Your task to perform on an android device: Install the Facebook app Image 0: 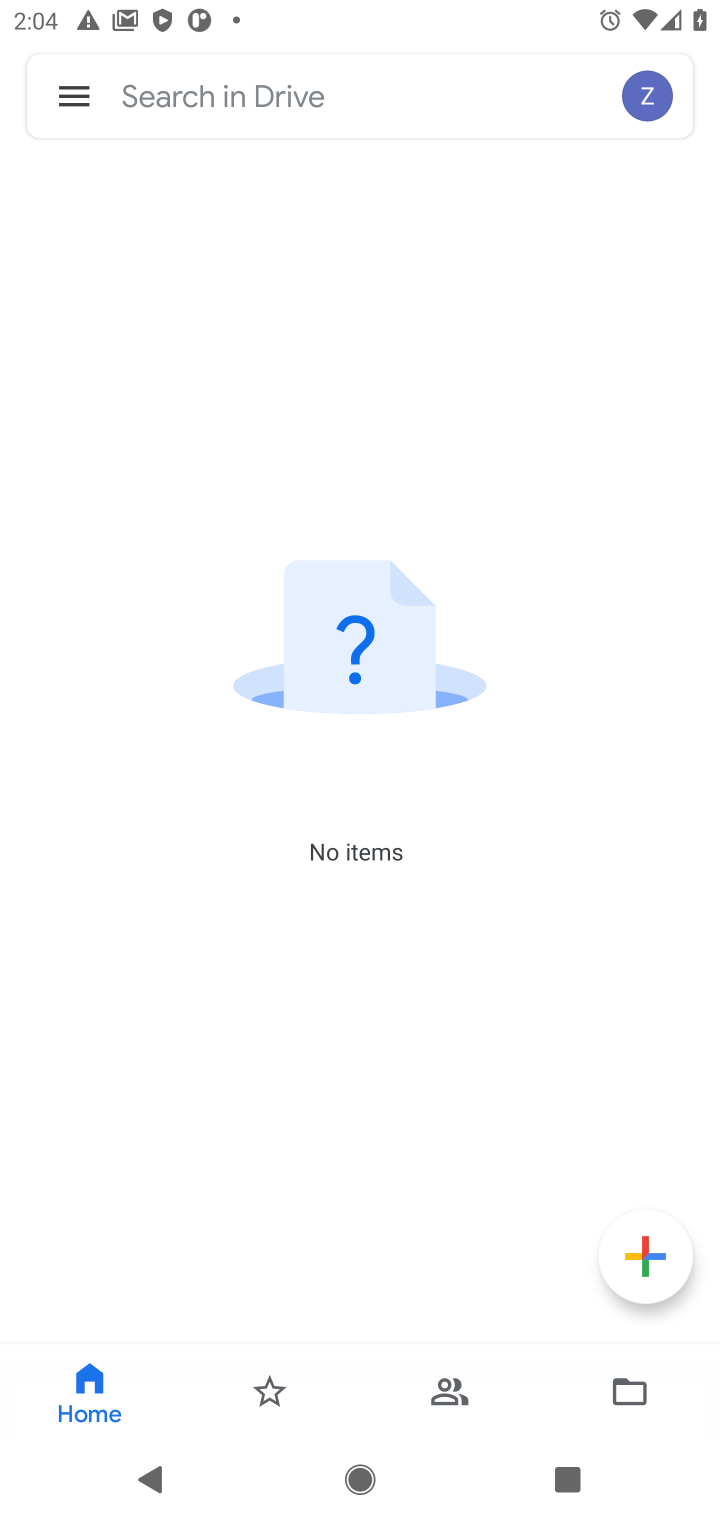
Step 0: press home button
Your task to perform on an android device: Install the Facebook app Image 1: 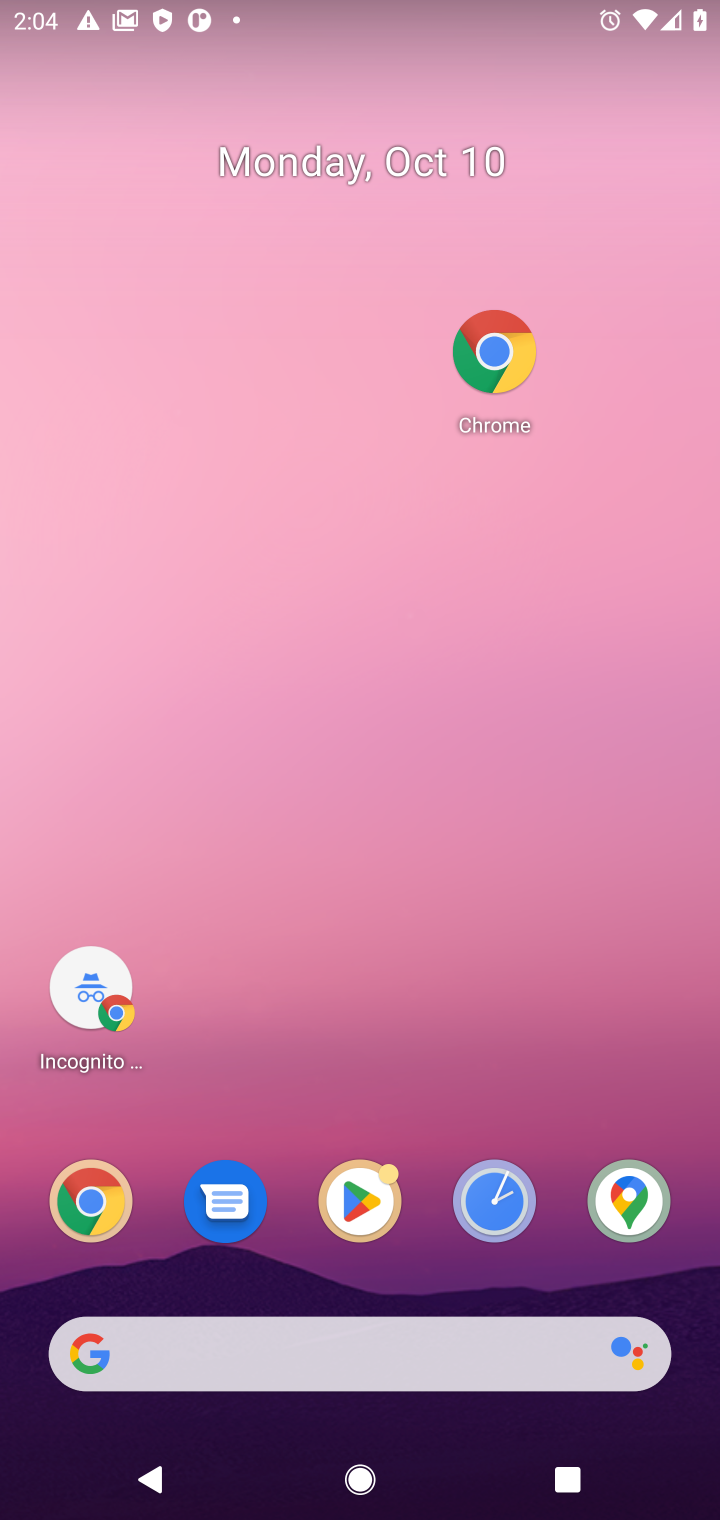
Step 1: click (337, 1208)
Your task to perform on an android device: Install the Facebook app Image 2: 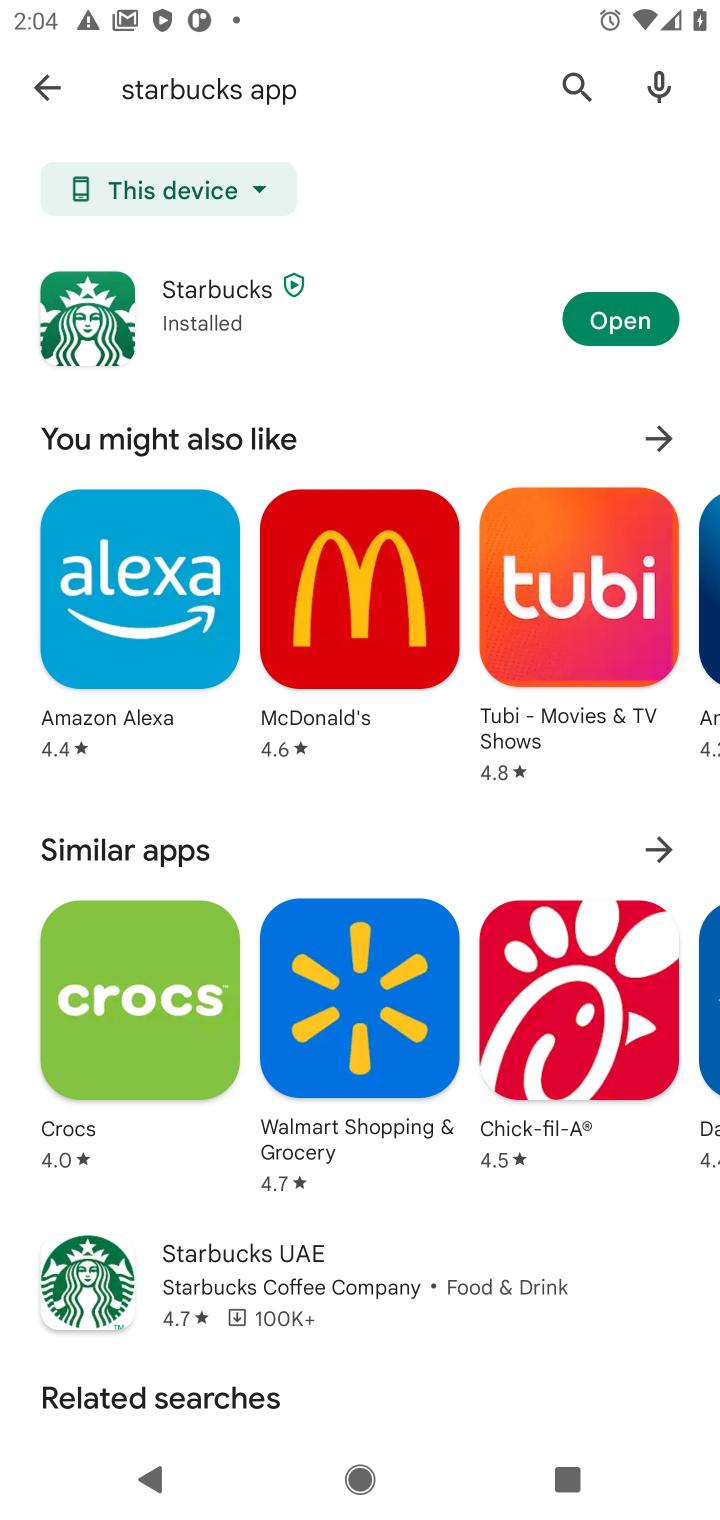
Step 2: click (571, 80)
Your task to perform on an android device: Install the Facebook app Image 3: 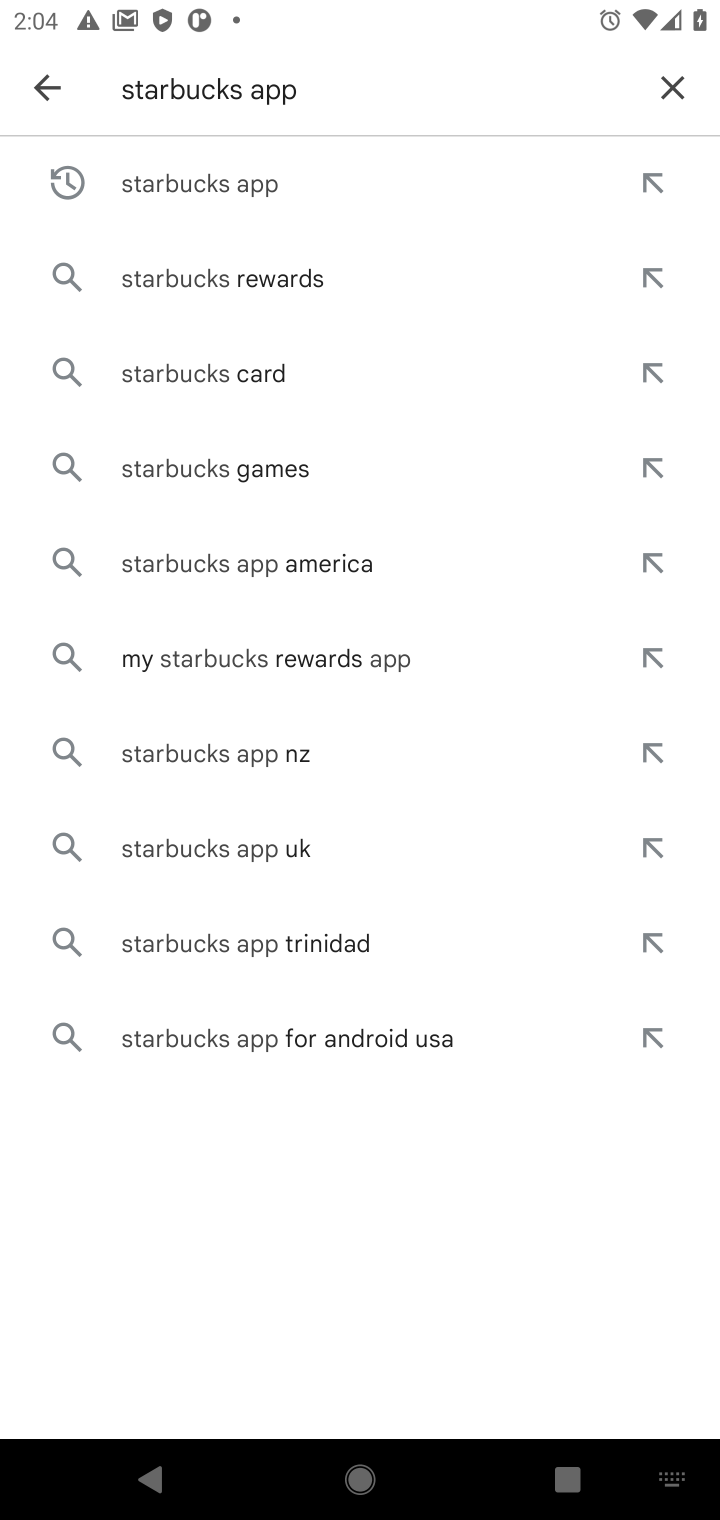
Step 3: click (662, 92)
Your task to perform on an android device: Install the Facebook app Image 4: 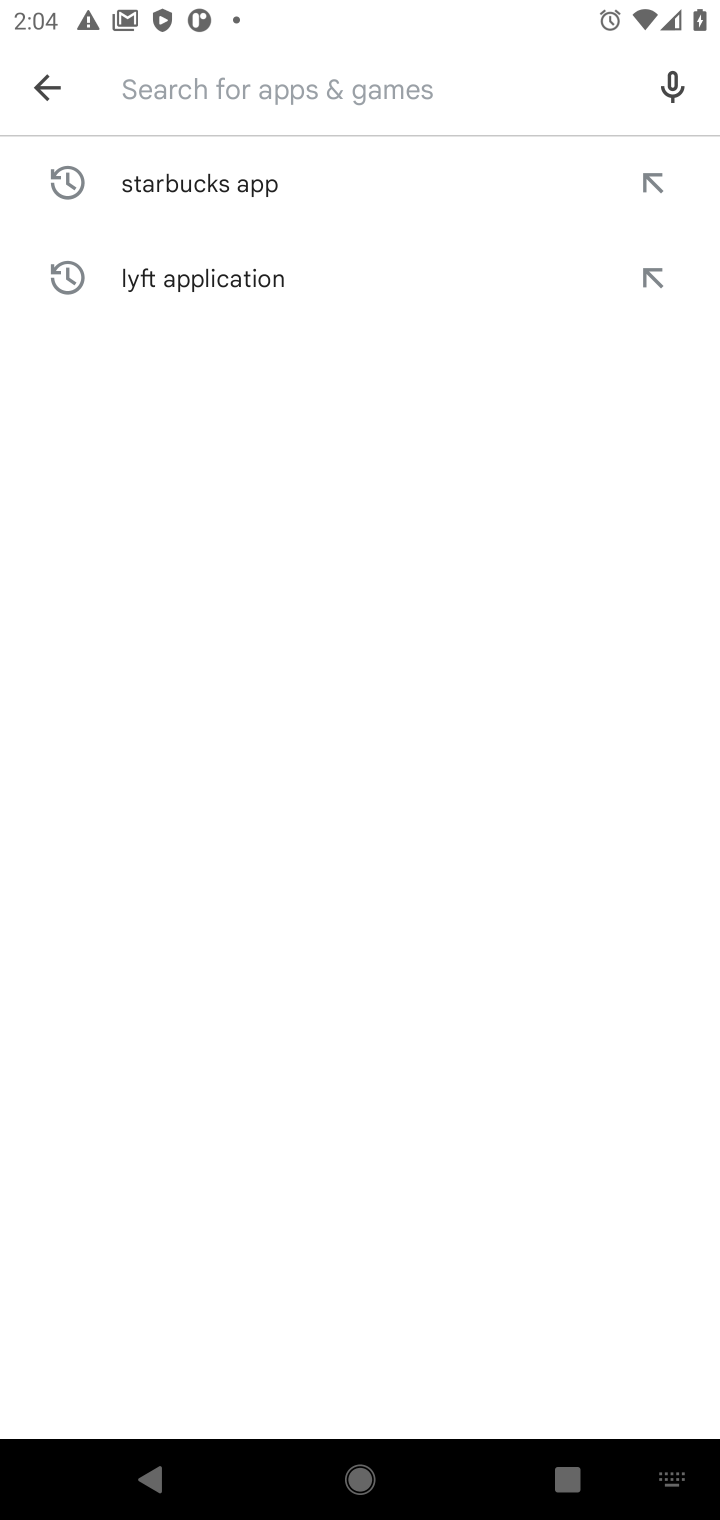
Step 4: type "facebook app"
Your task to perform on an android device: Install the Facebook app Image 5: 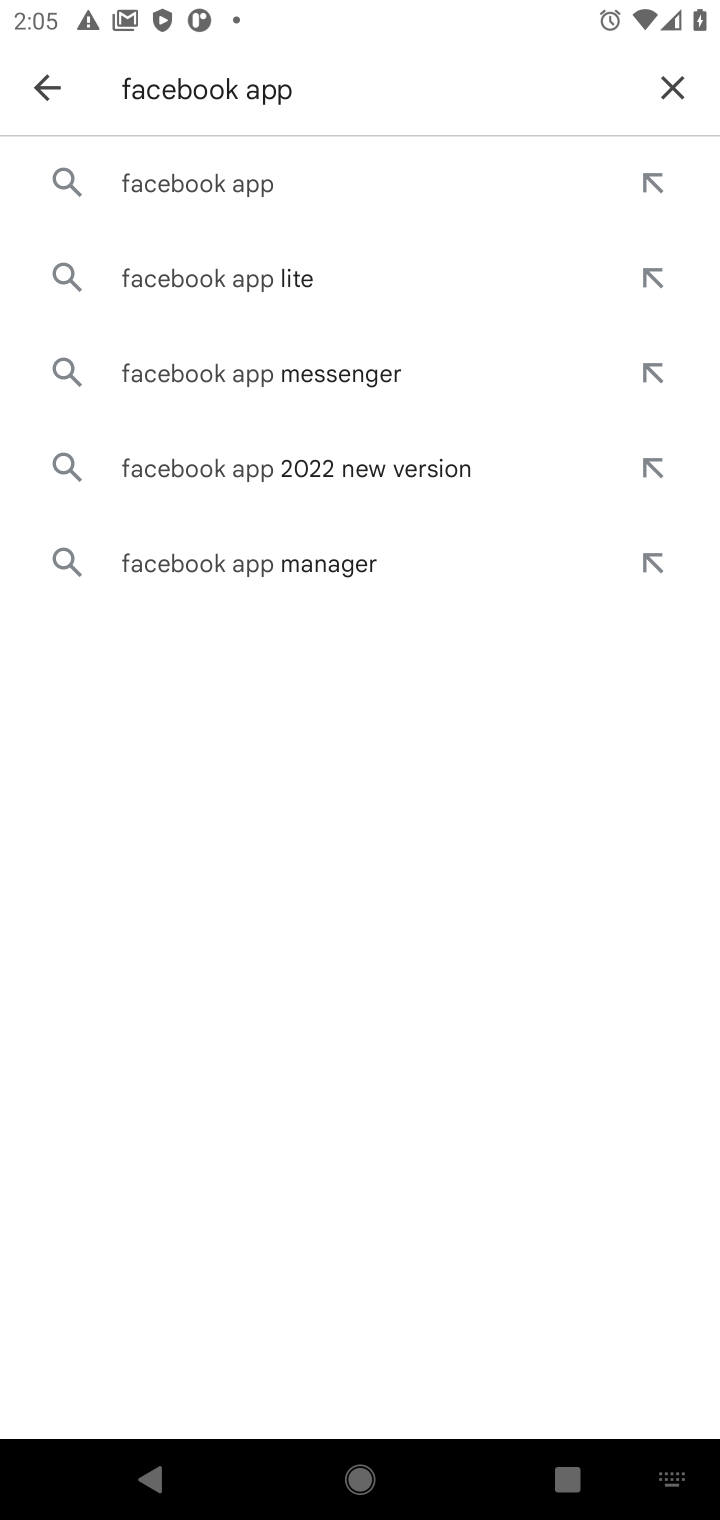
Step 5: click (240, 199)
Your task to perform on an android device: Install the Facebook app Image 6: 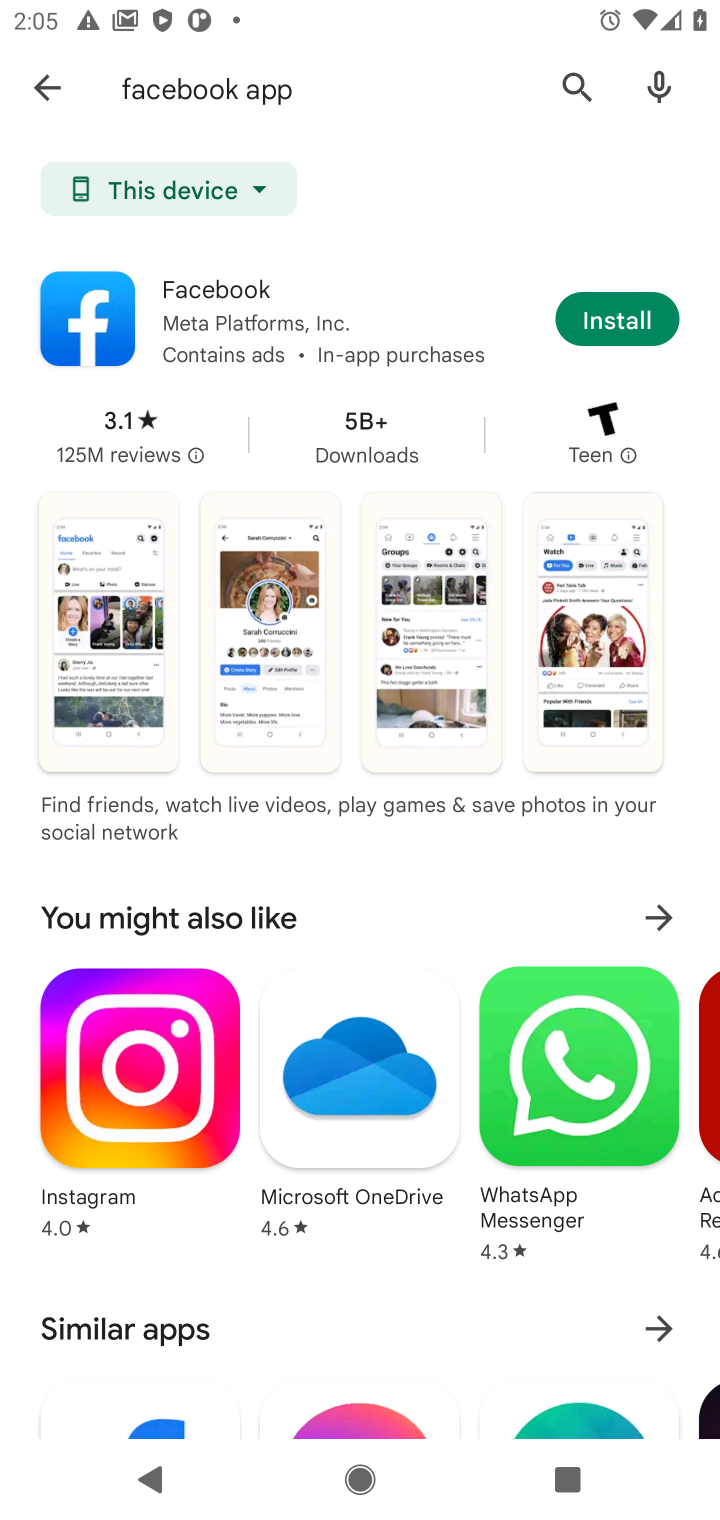
Step 6: click (624, 332)
Your task to perform on an android device: Install the Facebook app Image 7: 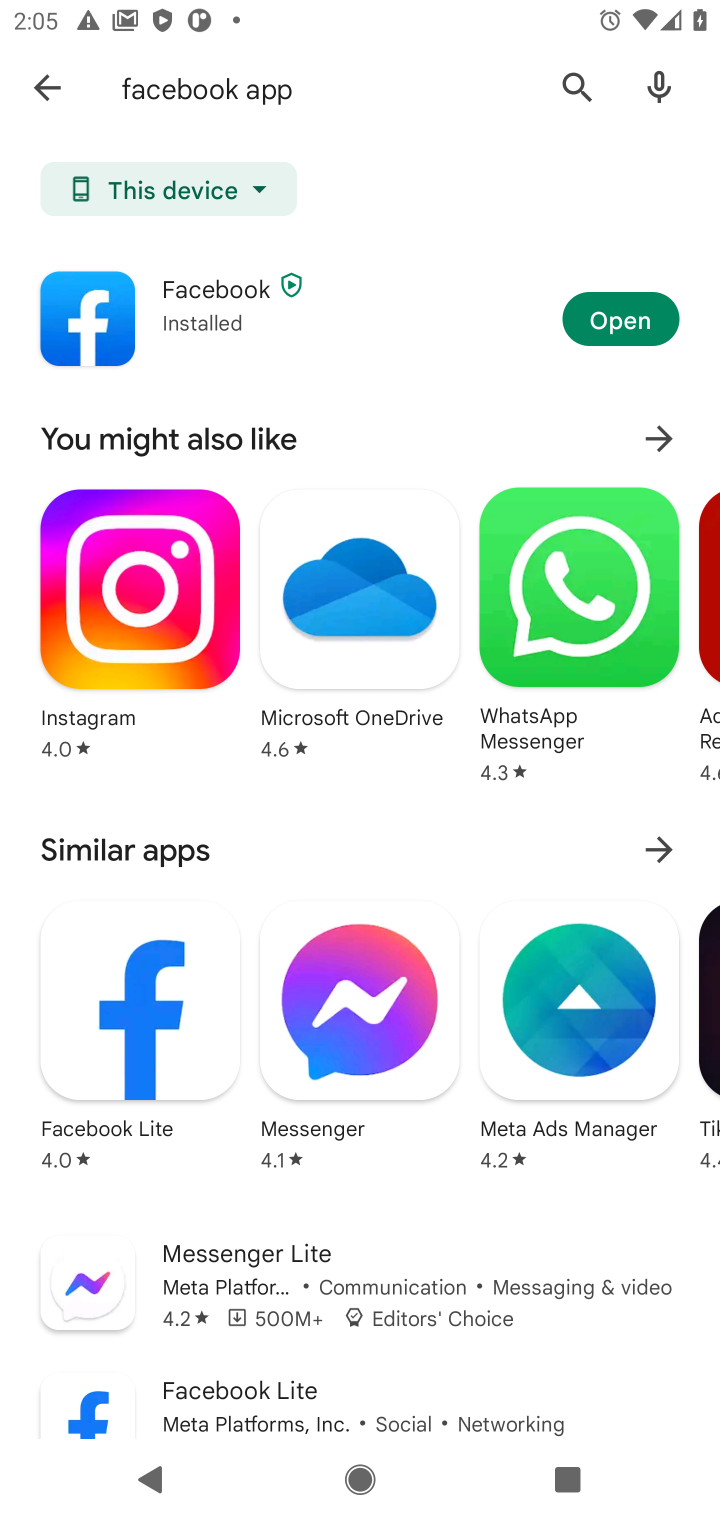
Step 7: task complete